Your task to perform on an android device: turn notification dots off Image 0: 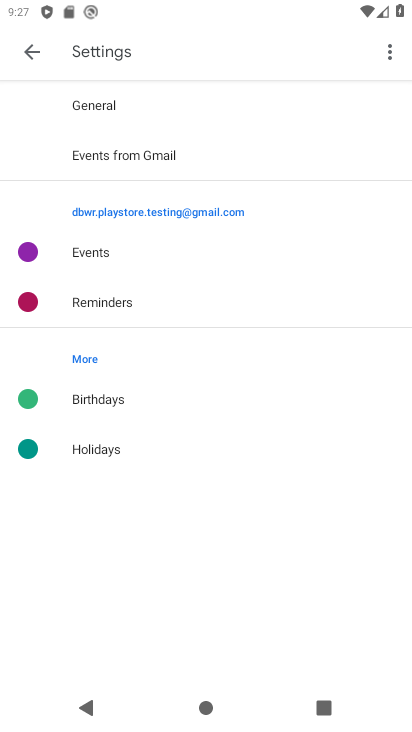
Step 0: drag from (392, 642) to (406, 377)
Your task to perform on an android device: turn notification dots off Image 1: 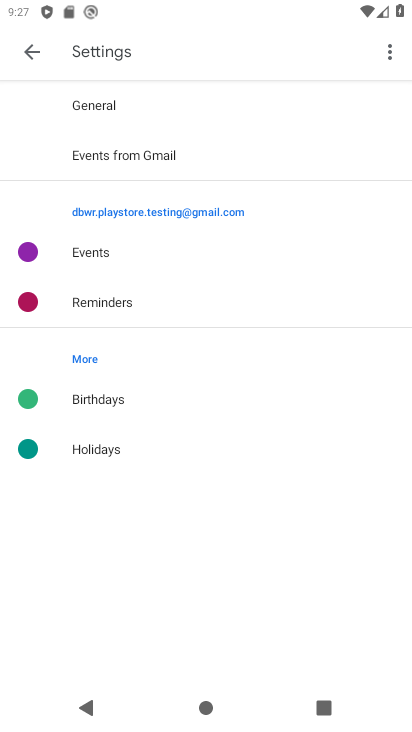
Step 1: press home button
Your task to perform on an android device: turn notification dots off Image 2: 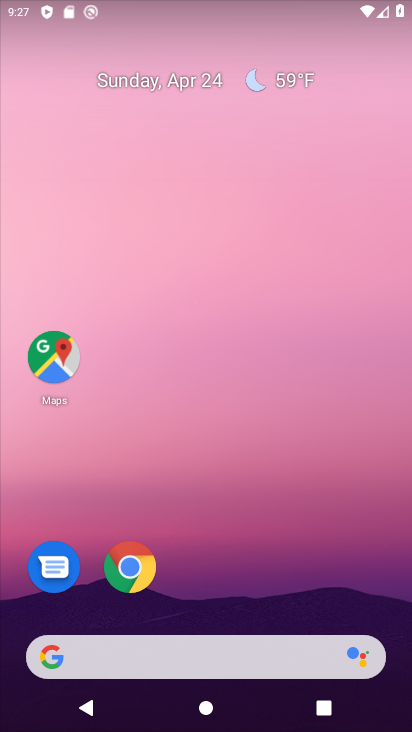
Step 2: drag from (399, 611) to (406, 174)
Your task to perform on an android device: turn notification dots off Image 3: 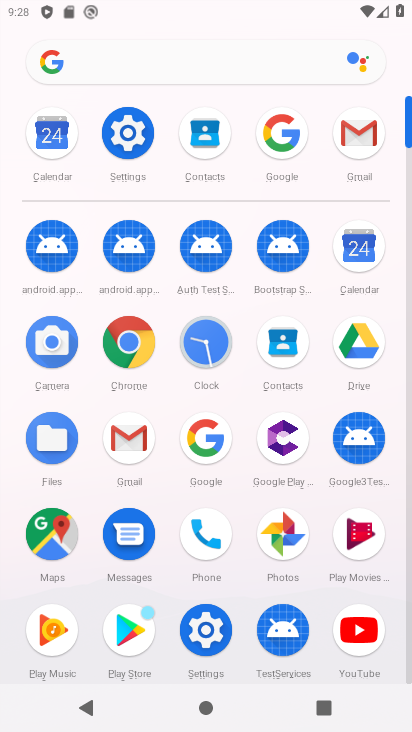
Step 3: click (210, 623)
Your task to perform on an android device: turn notification dots off Image 4: 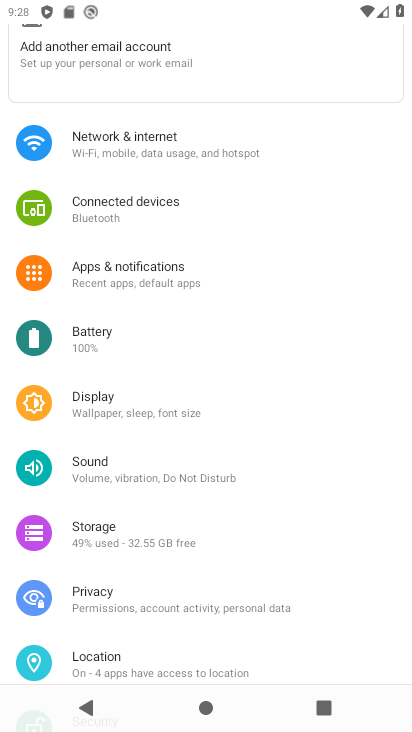
Step 4: click (118, 267)
Your task to perform on an android device: turn notification dots off Image 5: 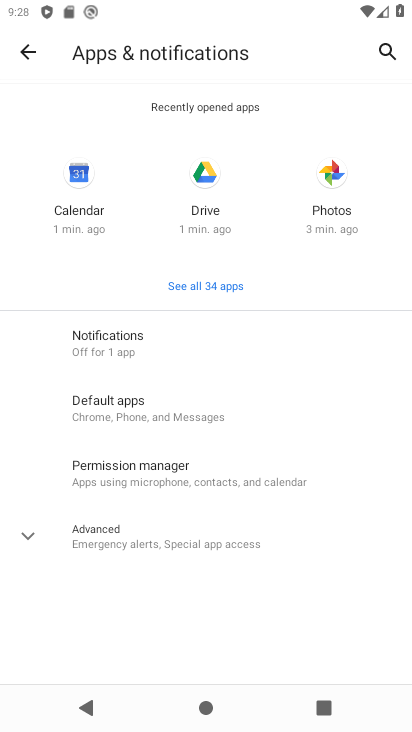
Step 5: click (100, 339)
Your task to perform on an android device: turn notification dots off Image 6: 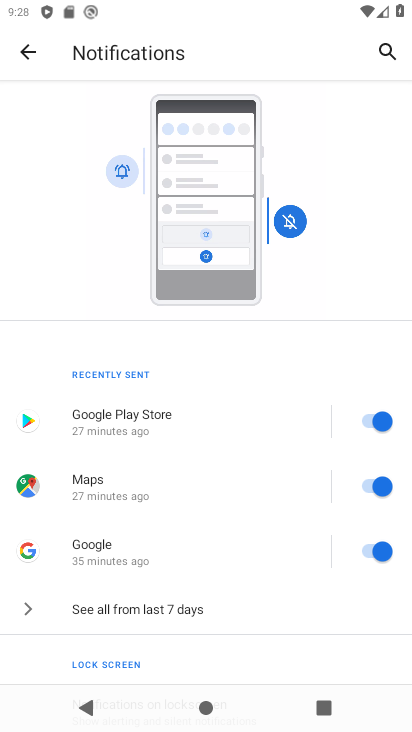
Step 6: click (333, 270)
Your task to perform on an android device: turn notification dots off Image 7: 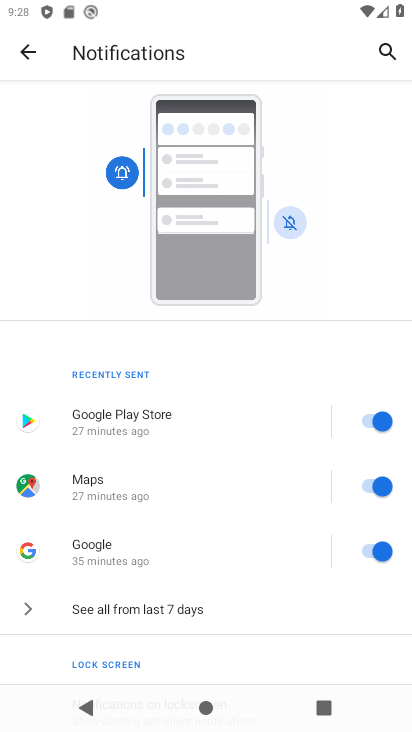
Step 7: drag from (312, 442) to (334, 330)
Your task to perform on an android device: turn notification dots off Image 8: 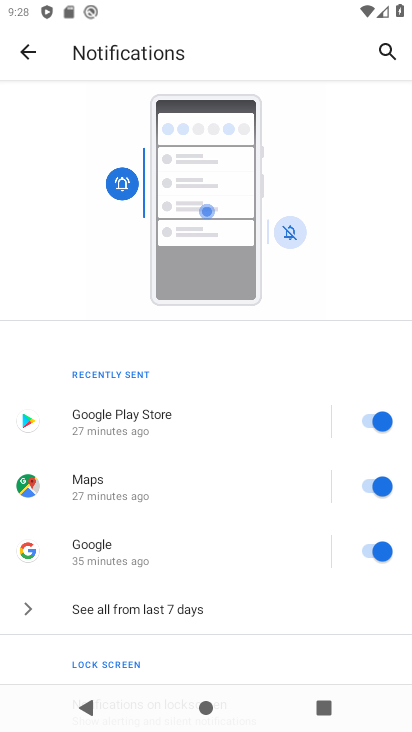
Step 8: drag from (279, 650) to (306, 410)
Your task to perform on an android device: turn notification dots off Image 9: 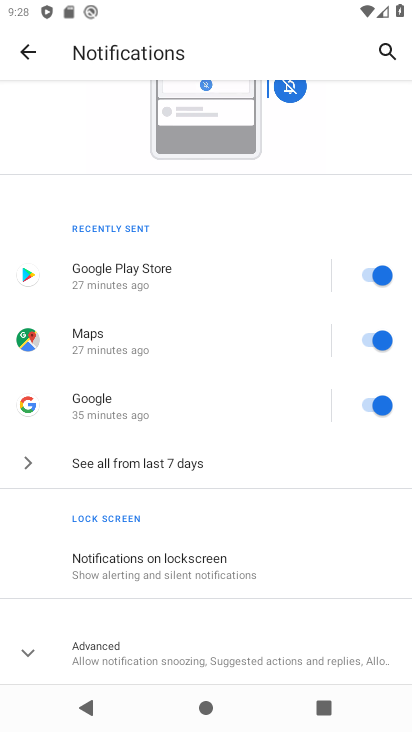
Step 9: click (36, 648)
Your task to perform on an android device: turn notification dots off Image 10: 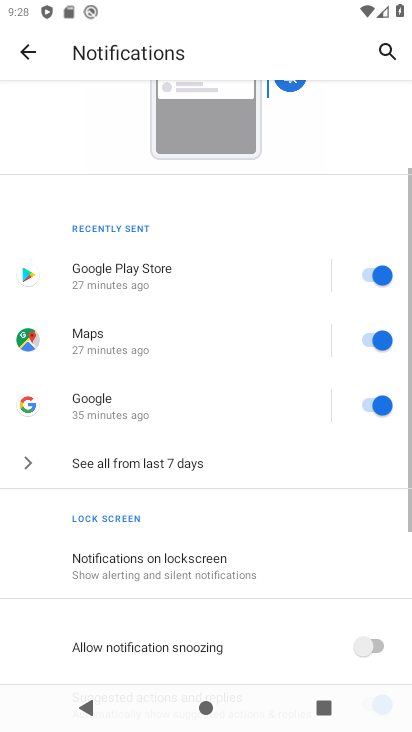
Step 10: drag from (316, 642) to (303, 361)
Your task to perform on an android device: turn notification dots off Image 11: 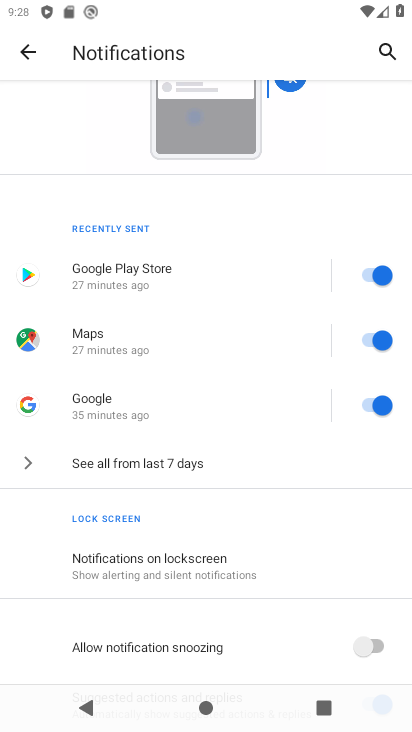
Step 11: drag from (300, 632) to (306, 327)
Your task to perform on an android device: turn notification dots off Image 12: 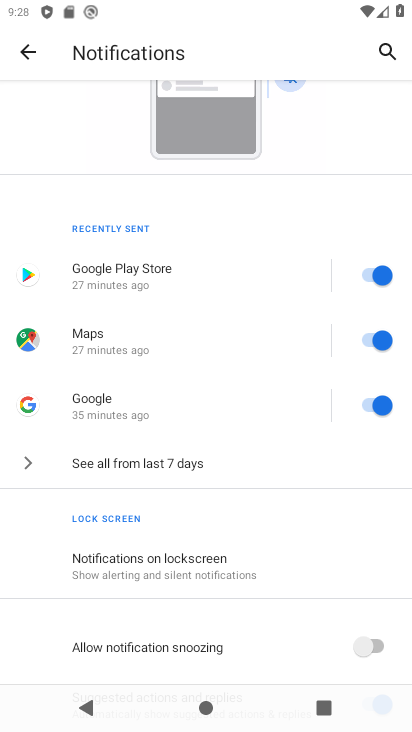
Step 12: drag from (294, 544) to (286, 304)
Your task to perform on an android device: turn notification dots off Image 13: 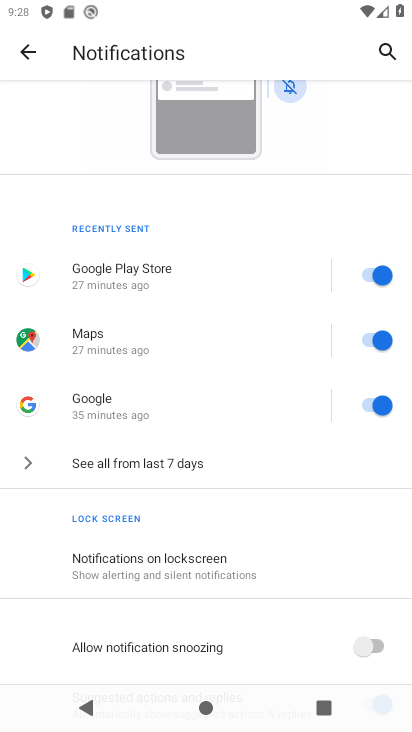
Step 13: drag from (274, 616) to (293, 277)
Your task to perform on an android device: turn notification dots off Image 14: 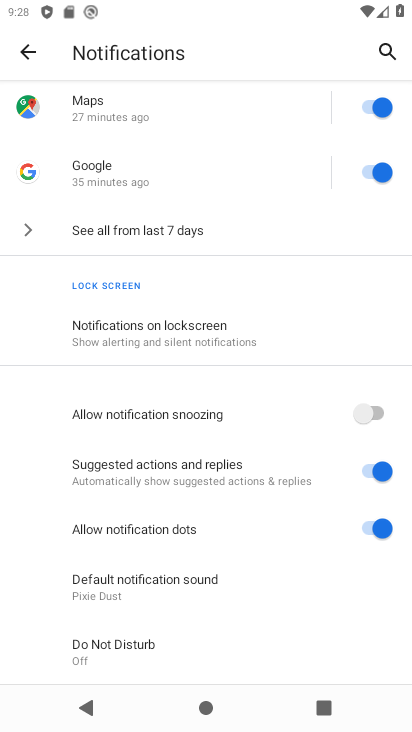
Step 14: click (364, 528)
Your task to perform on an android device: turn notification dots off Image 15: 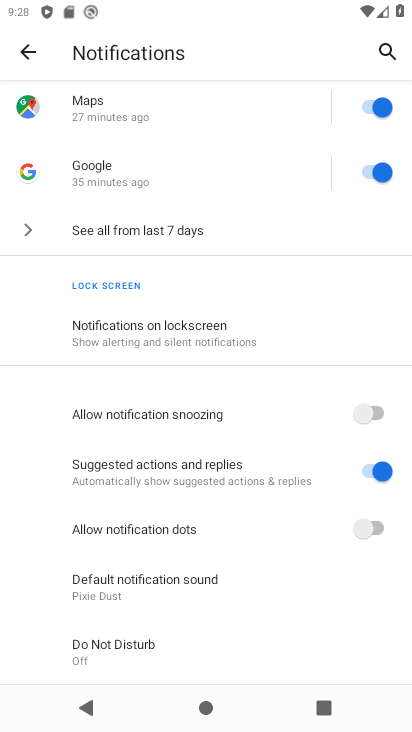
Step 15: task complete